Your task to perform on an android device: Open Reddit.com Image 0: 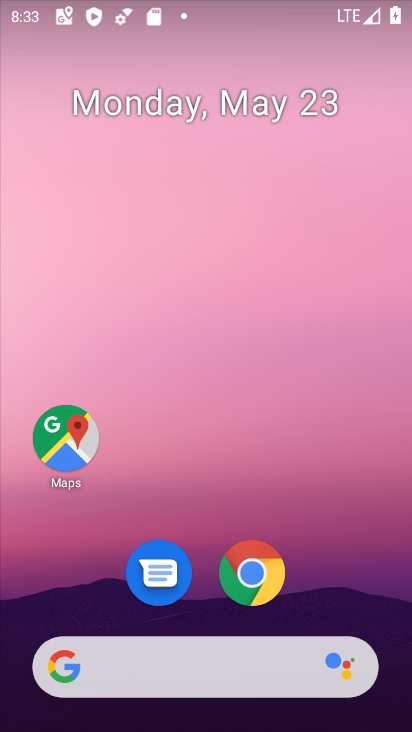
Step 0: click (237, 679)
Your task to perform on an android device: Open Reddit.com Image 1: 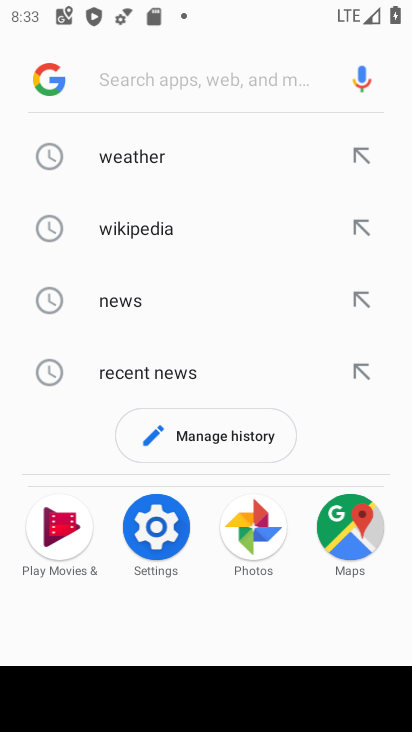
Step 1: type "reddit.com"
Your task to perform on an android device: Open Reddit.com Image 2: 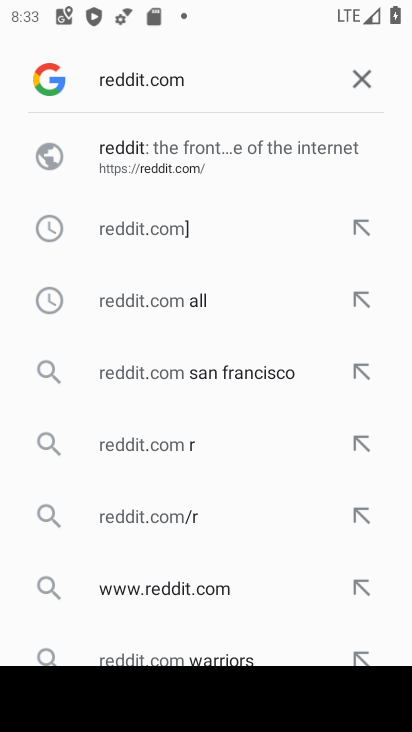
Step 2: click (139, 152)
Your task to perform on an android device: Open Reddit.com Image 3: 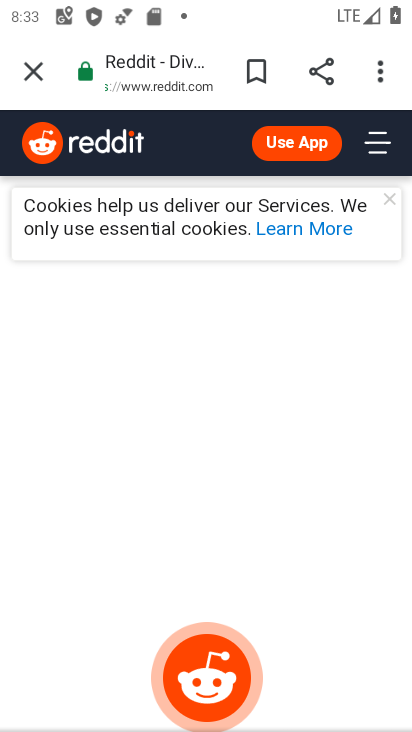
Step 3: task complete